Your task to perform on an android device: Turn on the flashlight Image 0: 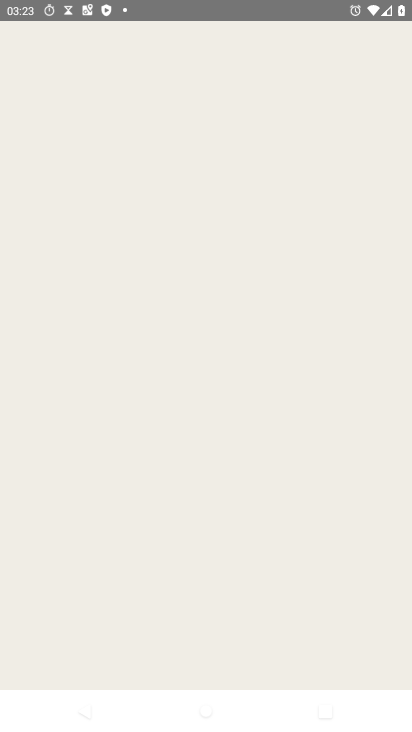
Step 0: drag from (285, 459) to (274, 212)
Your task to perform on an android device: Turn on the flashlight Image 1: 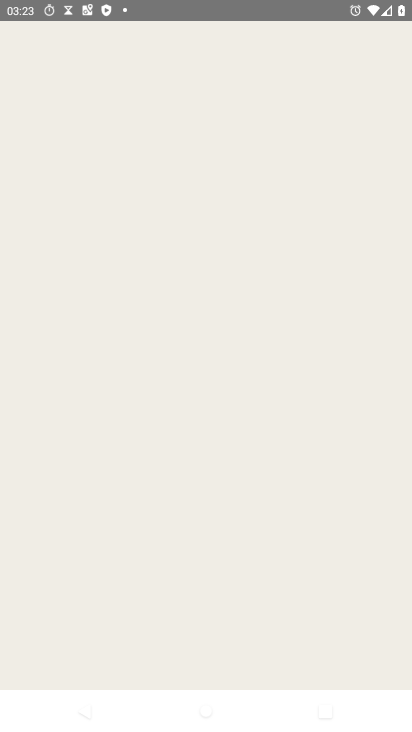
Step 1: task complete